Your task to perform on an android device: empty trash in the gmail app Image 0: 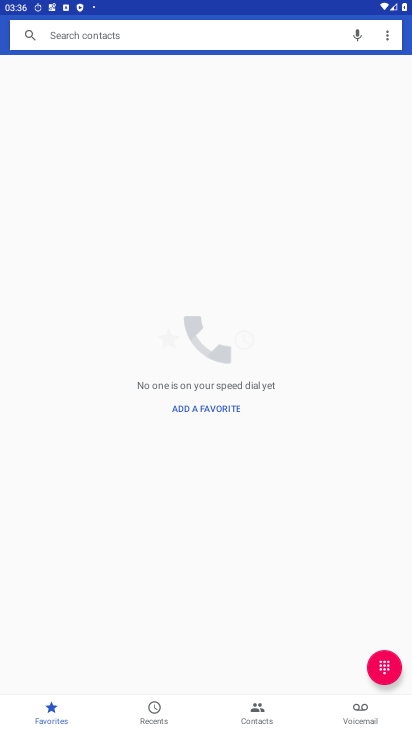
Step 0: press home button
Your task to perform on an android device: empty trash in the gmail app Image 1: 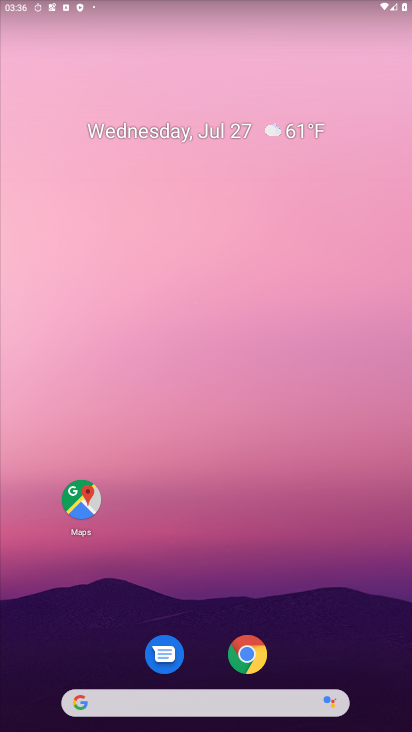
Step 1: drag from (349, 648) to (357, 222)
Your task to perform on an android device: empty trash in the gmail app Image 2: 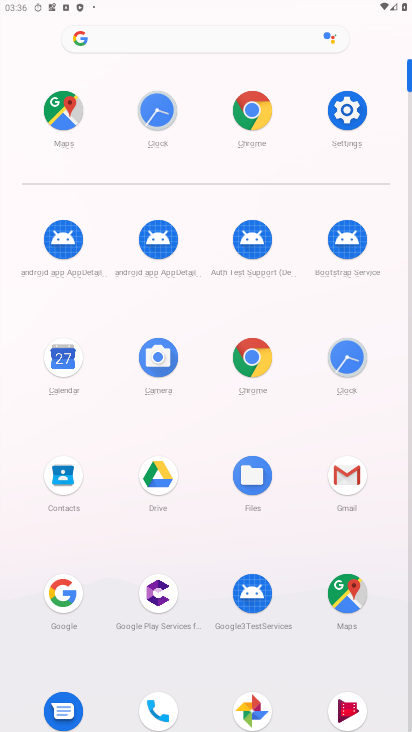
Step 2: click (349, 467)
Your task to perform on an android device: empty trash in the gmail app Image 3: 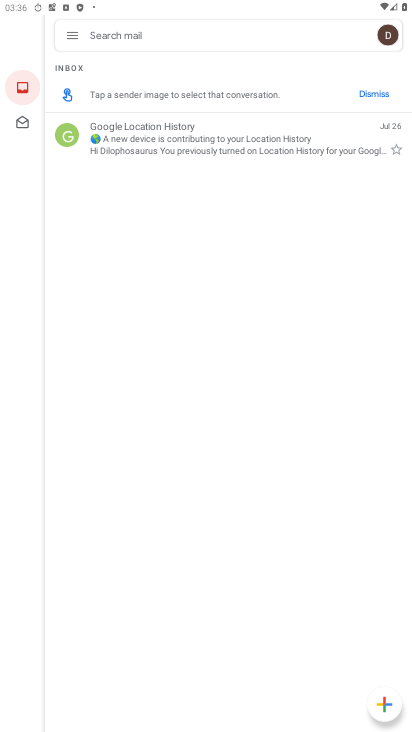
Step 3: click (72, 28)
Your task to perform on an android device: empty trash in the gmail app Image 4: 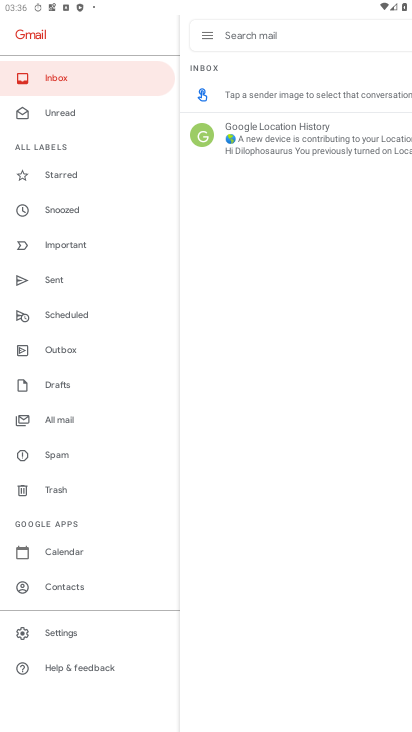
Step 4: click (52, 491)
Your task to perform on an android device: empty trash in the gmail app Image 5: 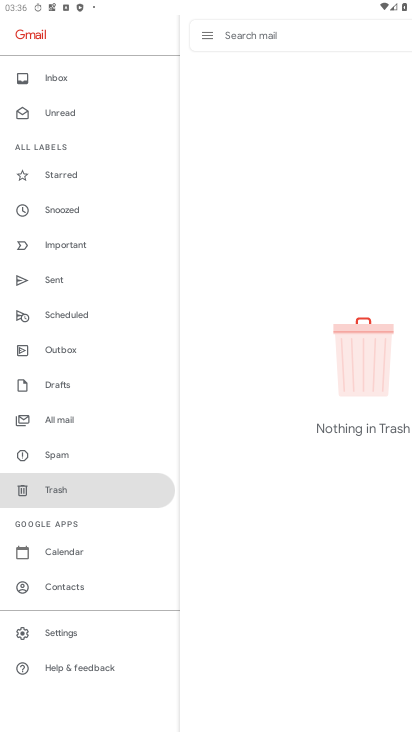
Step 5: task complete